Your task to perform on an android device: Open Google Chrome and click the shortcut for Amazon.com Image 0: 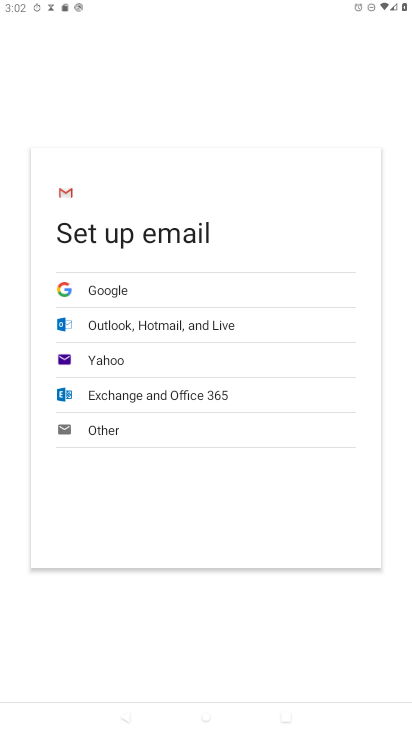
Step 0: press home button
Your task to perform on an android device: Open Google Chrome and click the shortcut for Amazon.com Image 1: 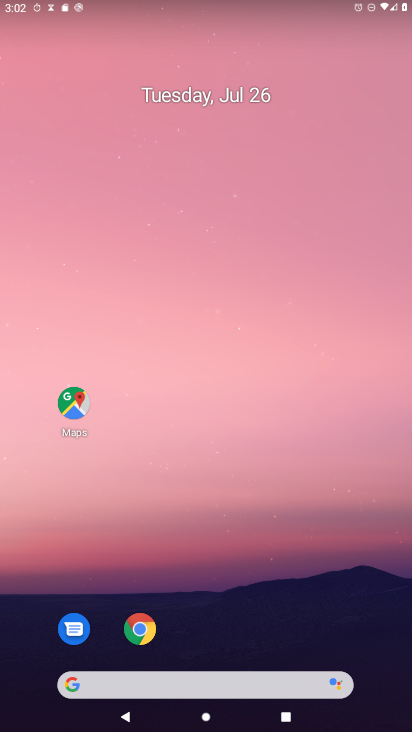
Step 1: drag from (202, 694) to (394, 488)
Your task to perform on an android device: Open Google Chrome and click the shortcut for Amazon.com Image 2: 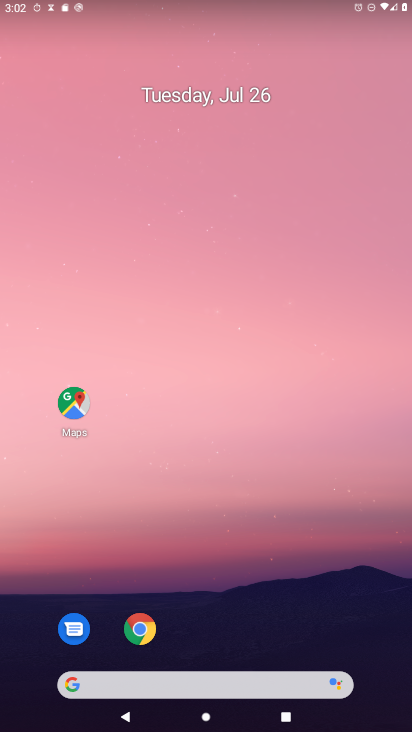
Step 2: click (133, 321)
Your task to perform on an android device: Open Google Chrome and click the shortcut for Amazon.com Image 3: 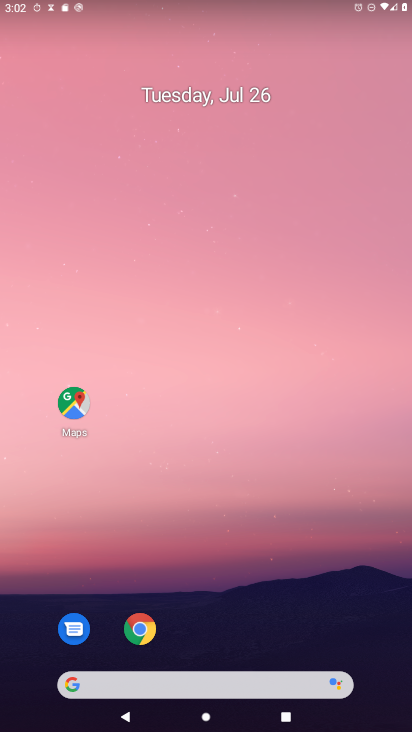
Step 3: drag from (183, 687) to (208, 40)
Your task to perform on an android device: Open Google Chrome and click the shortcut for Amazon.com Image 4: 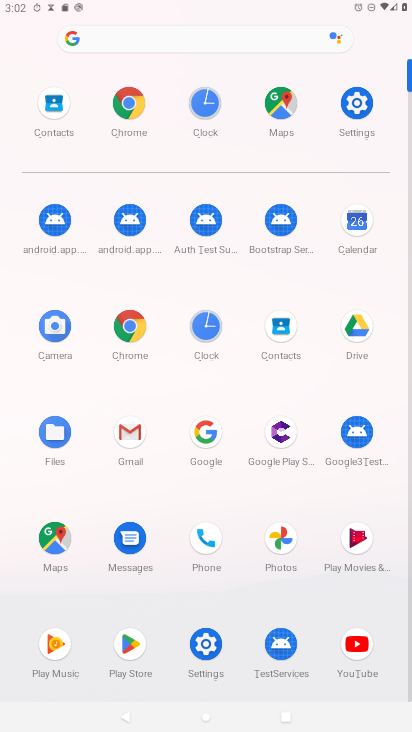
Step 4: click (120, 322)
Your task to perform on an android device: Open Google Chrome and click the shortcut for Amazon.com Image 5: 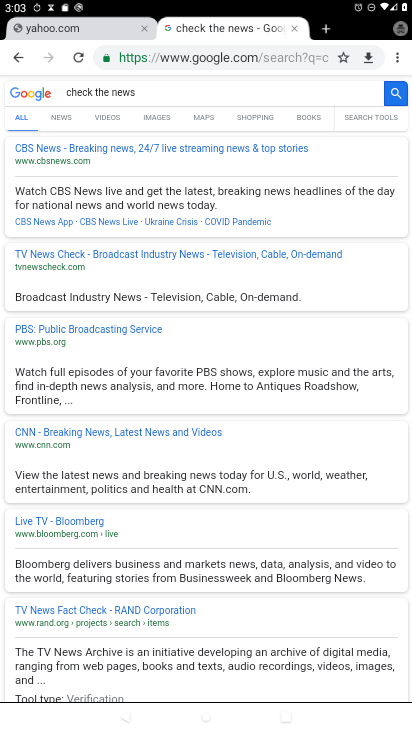
Step 5: drag from (401, 58) to (321, 63)
Your task to perform on an android device: Open Google Chrome and click the shortcut for Amazon.com Image 6: 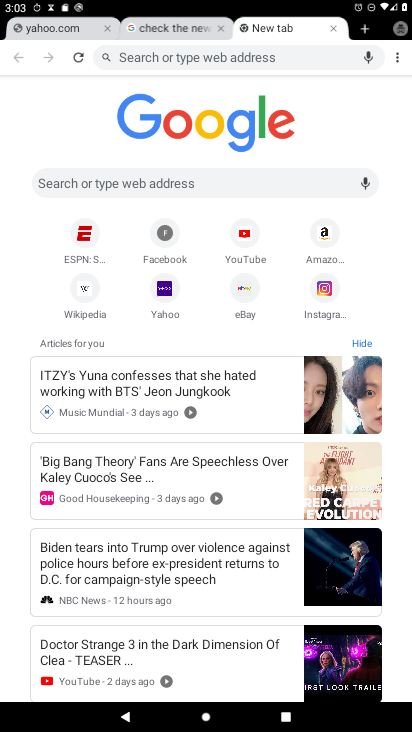
Step 6: click (322, 230)
Your task to perform on an android device: Open Google Chrome and click the shortcut for Amazon.com Image 7: 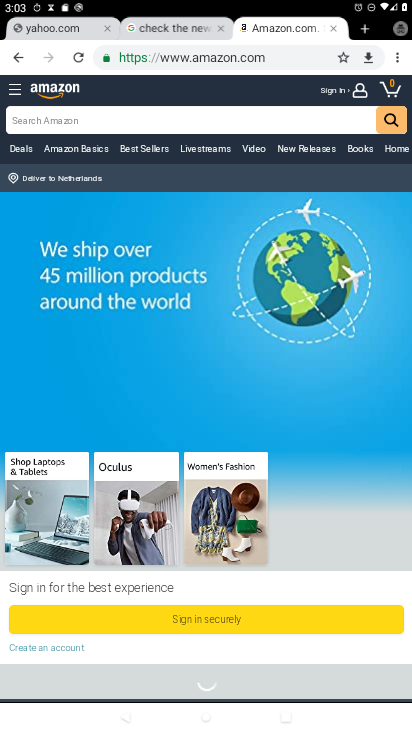
Step 7: drag from (394, 55) to (305, 322)
Your task to perform on an android device: Open Google Chrome and click the shortcut for Amazon.com Image 8: 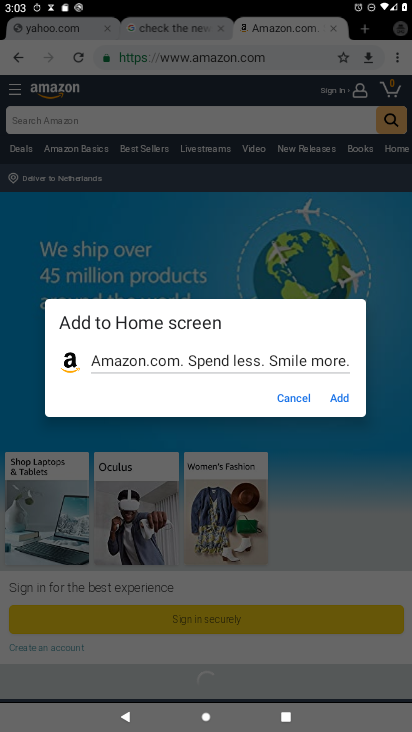
Step 8: click (341, 397)
Your task to perform on an android device: Open Google Chrome and click the shortcut for Amazon.com Image 9: 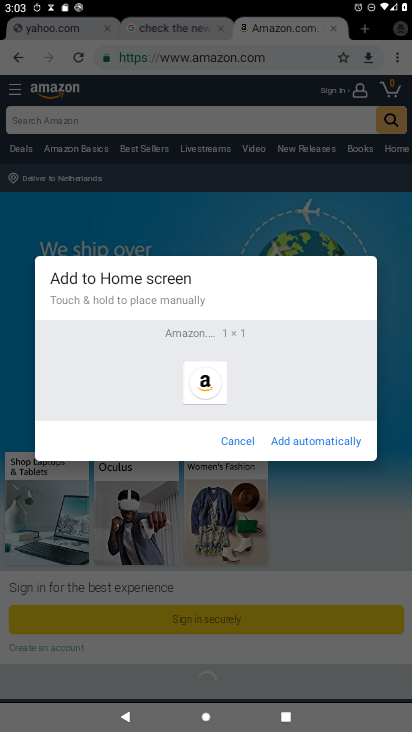
Step 9: task complete